Your task to perform on an android device: Open the calendar app, open the side menu, and click the "Day" option Image 0: 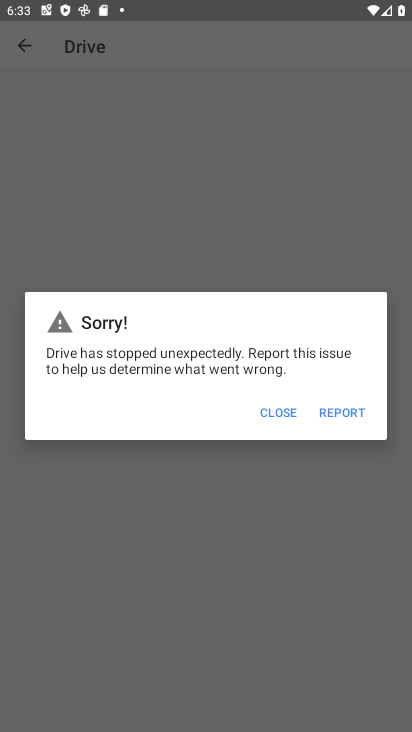
Step 0: press home button
Your task to perform on an android device: Open the calendar app, open the side menu, and click the "Day" option Image 1: 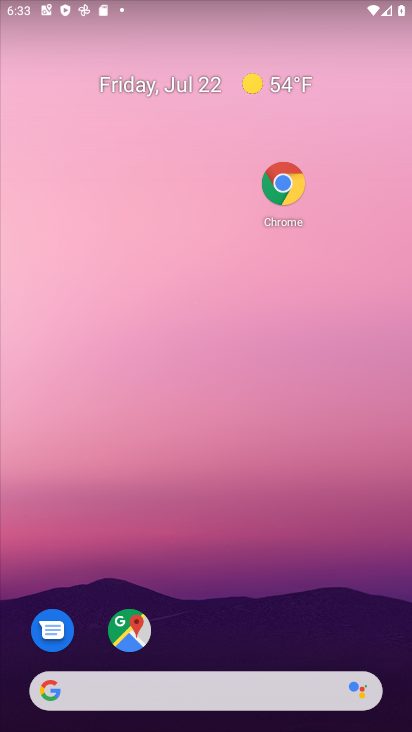
Step 1: drag from (212, 631) to (236, 186)
Your task to perform on an android device: Open the calendar app, open the side menu, and click the "Day" option Image 2: 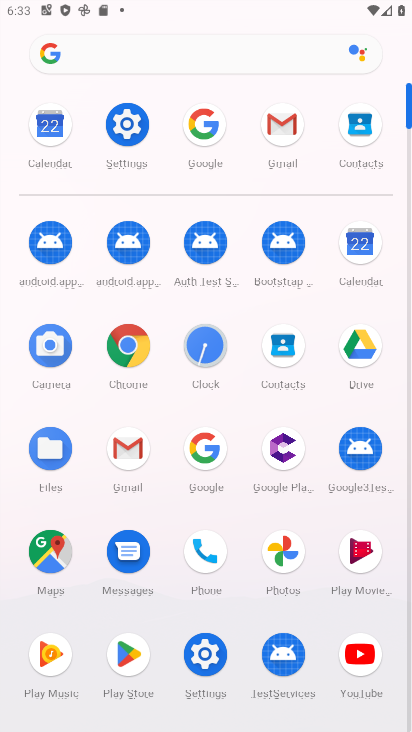
Step 2: click (344, 257)
Your task to perform on an android device: Open the calendar app, open the side menu, and click the "Day" option Image 3: 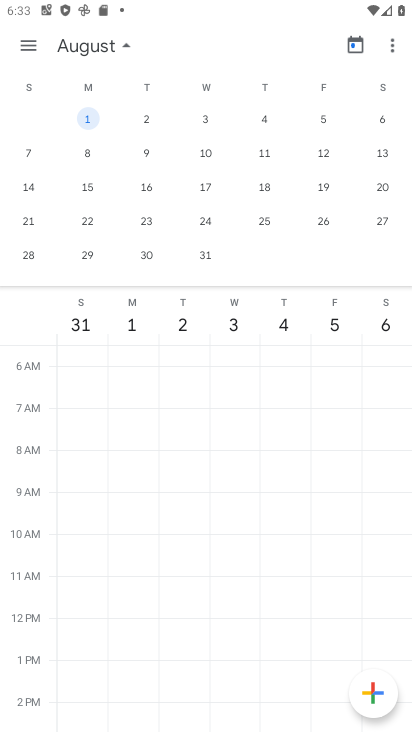
Step 3: click (22, 41)
Your task to perform on an android device: Open the calendar app, open the side menu, and click the "Day" option Image 4: 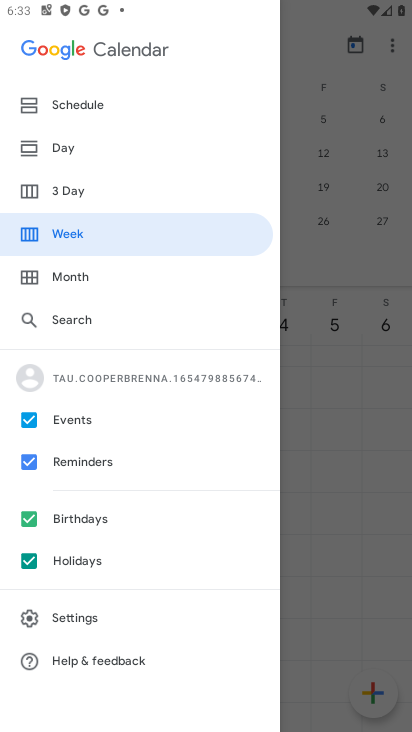
Step 4: click (57, 154)
Your task to perform on an android device: Open the calendar app, open the side menu, and click the "Day" option Image 5: 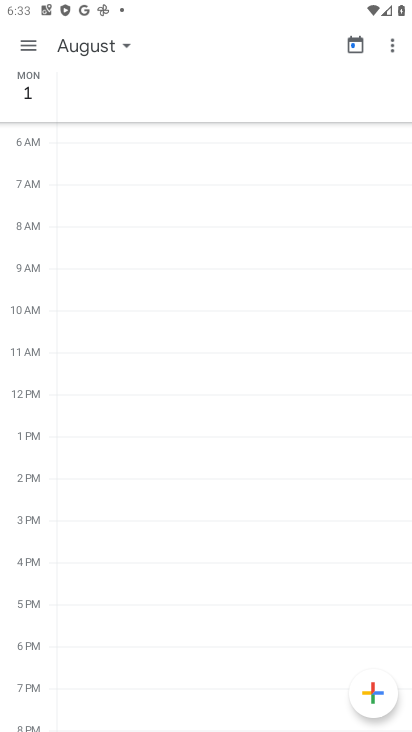
Step 5: task complete